Your task to perform on an android device: show emergency info Image 0: 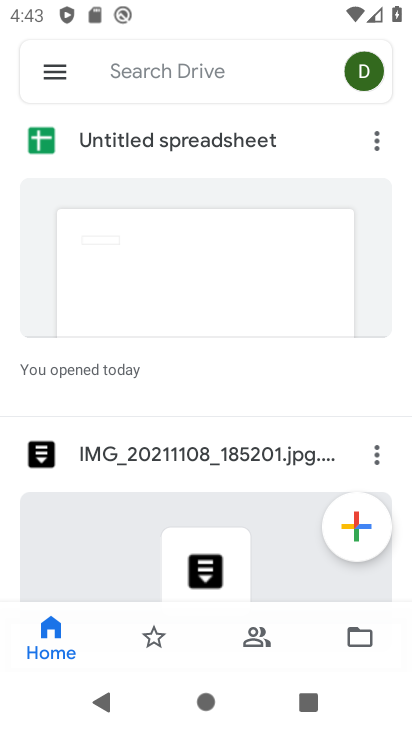
Step 0: press back button
Your task to perform on an android device: show emergency info Image 1: 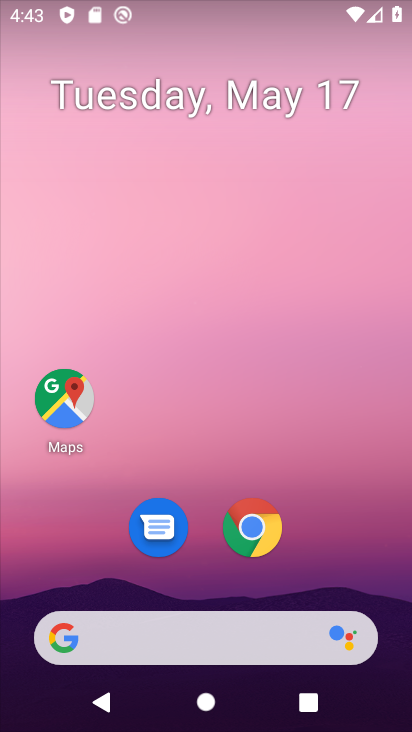
Step 1: drag from (344, 504) to (264, 38)
Your task to perform on an android device: show emergency info Image 2: 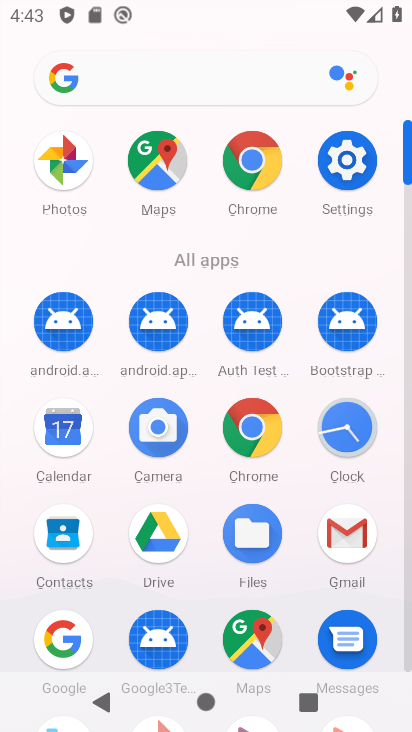
Step 2: drag from (15, 525) to (4, 177)
Your task to perform on an android device: show emergency info Image 3: 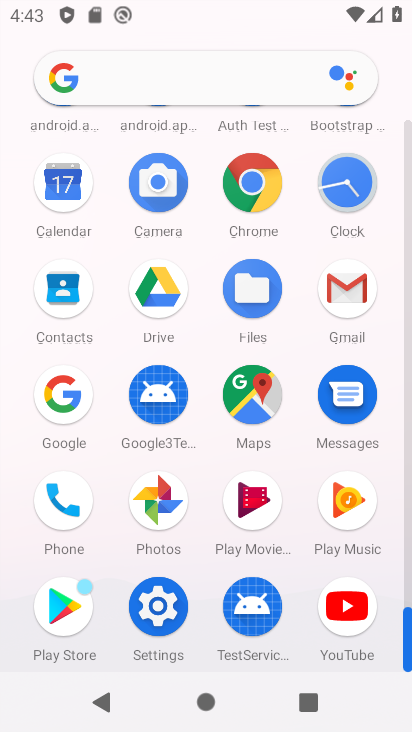
Step 3: click (153, 610)
Your task to perform on an android device: show emergency info Image 4: 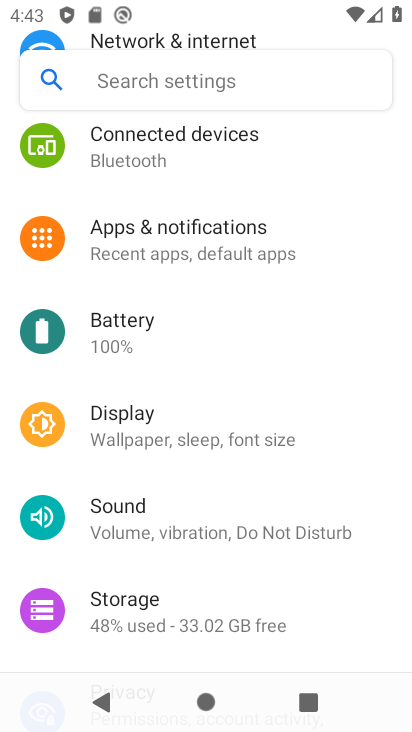
Step 4: drag from (255, 387) to (285, 110)
Your task to perform on an android device: show emergency info Image 5: 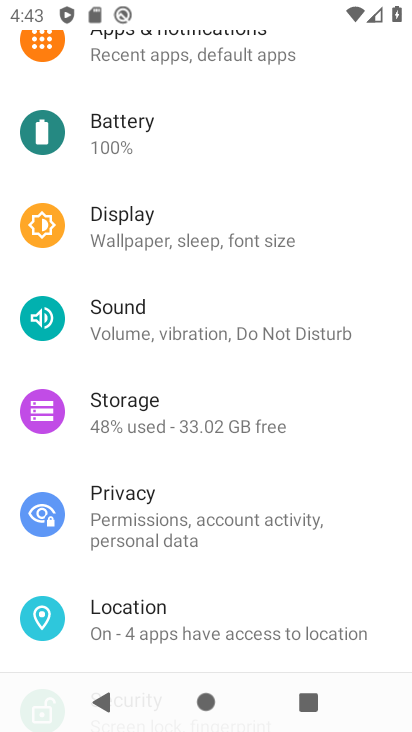
Step 5: drag from (214, 618) to (270, 135)
Your task to perform on an android device: show emergency info Image 6: 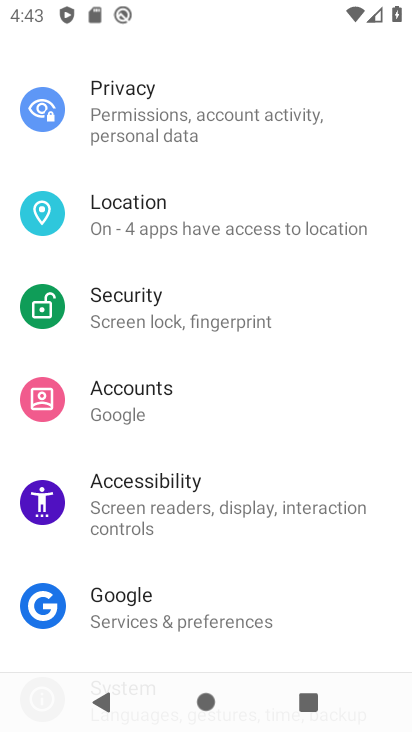
Step 6: drag from (289, 585) to (265, 132)
Your task to perform on an android device: show emergency info Image 7: 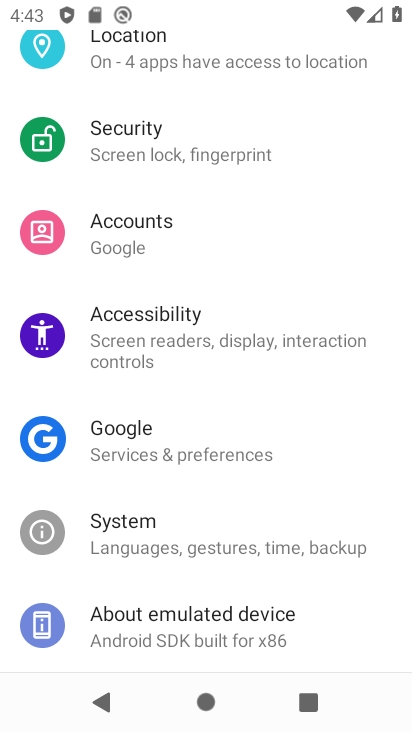
Step 7: drag from (284, 624) to (285, 204)
Your task to perform on an android device: show emergency info Image 8: 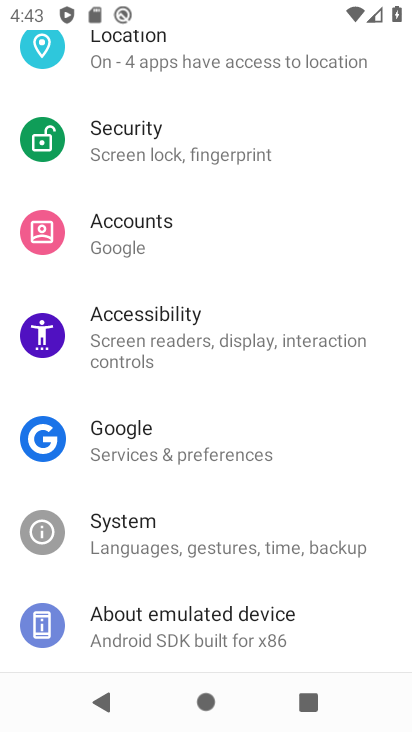
Step 8: click (185, 624)
Your task to perform on an android device: show emergency info Image 9: 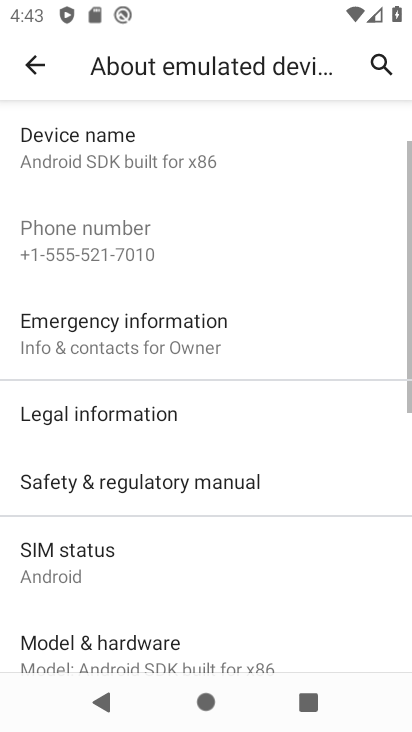
Step 9: click (217, 334)
Your task to perform on an android device: show emergency info Image 10: 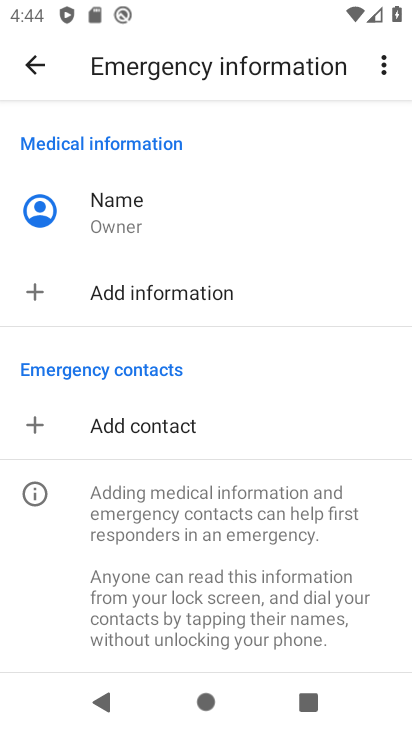
Step 10: task complete